Your task to perform on an android device: stop showing notifications on the lock screen Image 0: 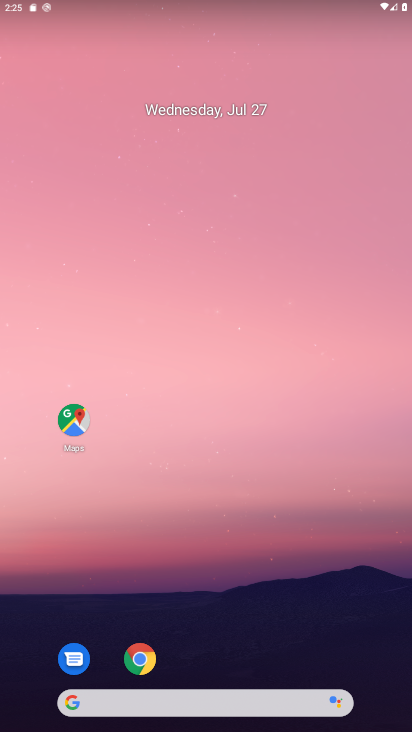
Step 0: drag from (207, 590) to (191, 0)
Your task to perform on an android device: stop showing notifications on the lock screen Image 1: 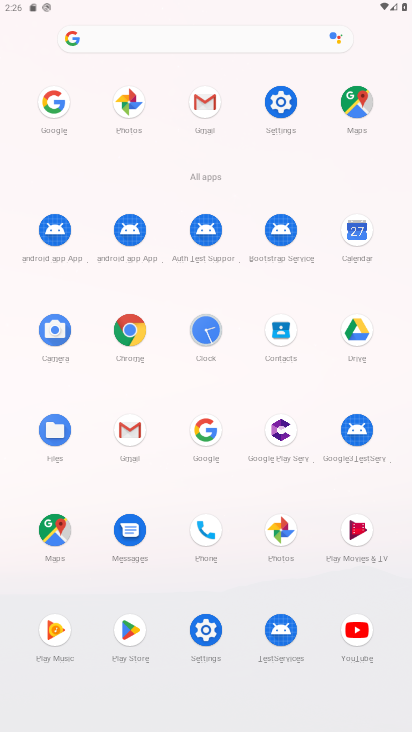
Step 1: click (274, 106)
Your task to perform on an android device: stop showing notifications on the lock screen Image 2: 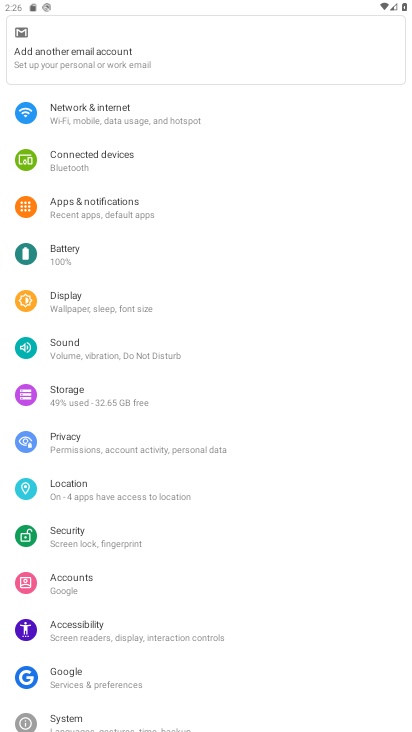
Step 2: click (110, 214)
Your task to perform on an android device: stop showing notifications on the lock screen Image 3: 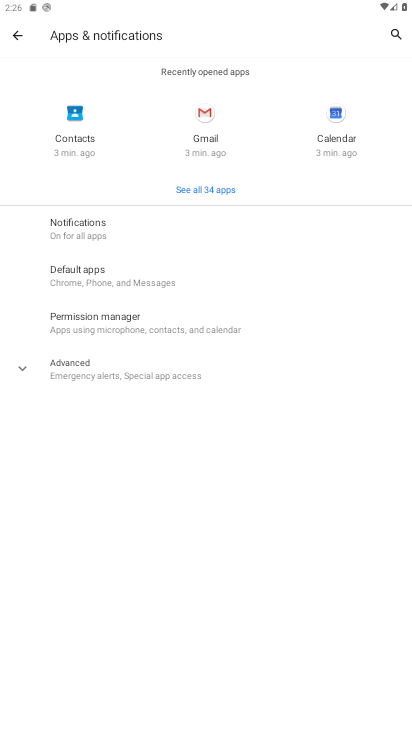
Step 3: click (92, 225)
Your task to perform on an android device: stop showing notifications on the lock screen Image 4: 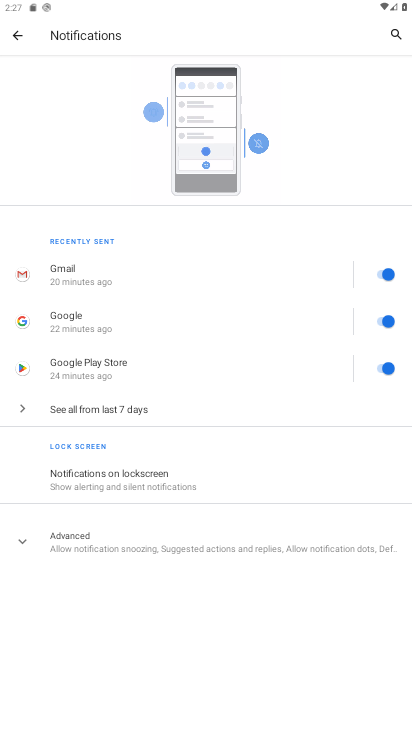
Step 4: click (107, 468)
Your task to perform on an android device: stop showing notifications on the lock screen Image 5: 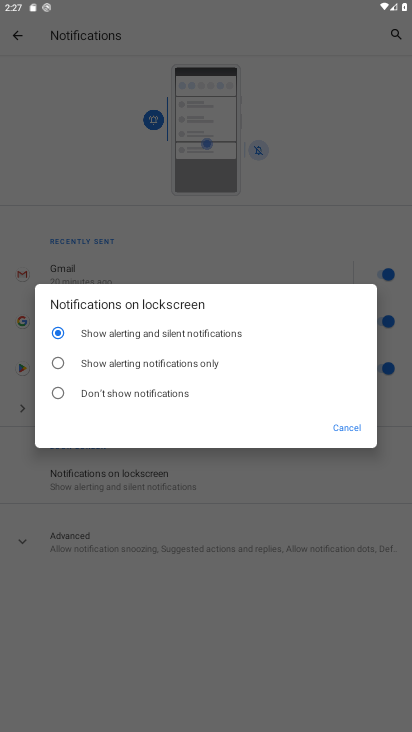
Step 5: click (82, 389)
Your task to perform on an android device: stop showing notifications on the lock screen Image 6: 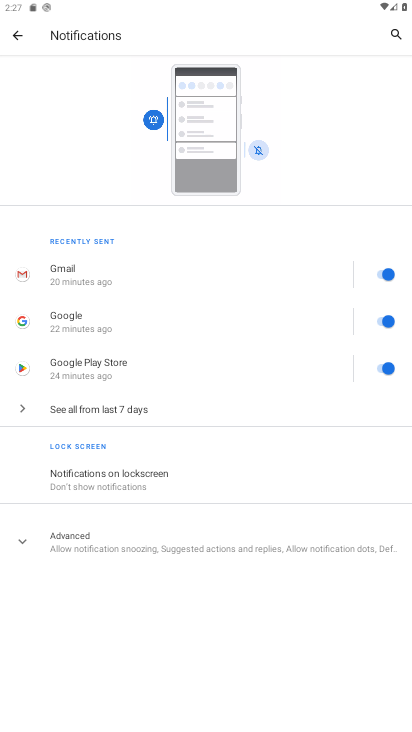
Step 6: task complete